Your task to perform on an android device: turn off improve location accuracy Image 0: 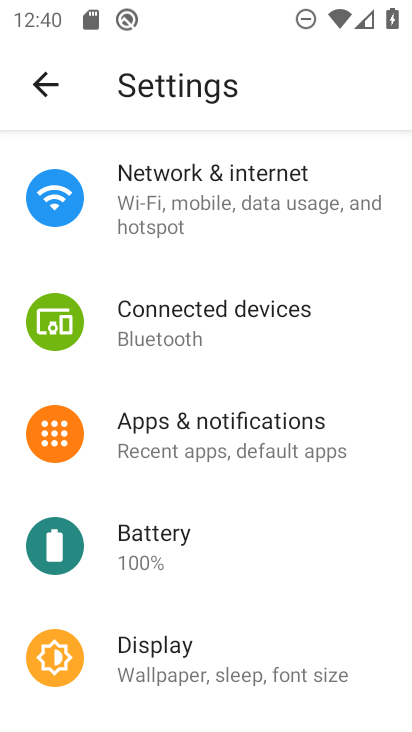
Step 0: drag from (196, 567) to (215, 239)
Your task to perform on an android device: turn off improve location accuracy Image 1: 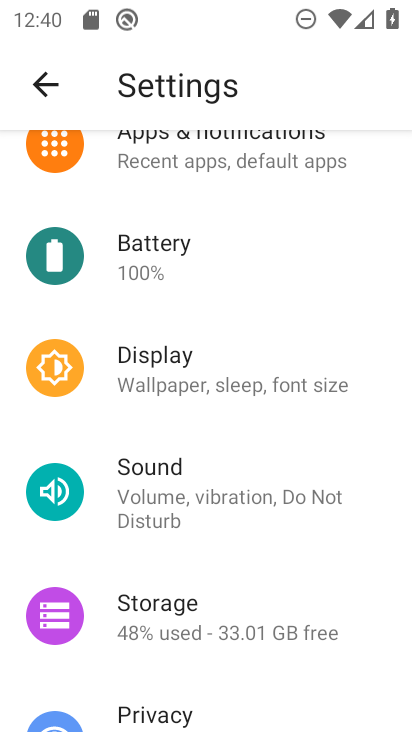
Step 1: drag from (195, 610) to (184, 274)
Your task to perform on an android device: turn off improve location accuracy Image 2: 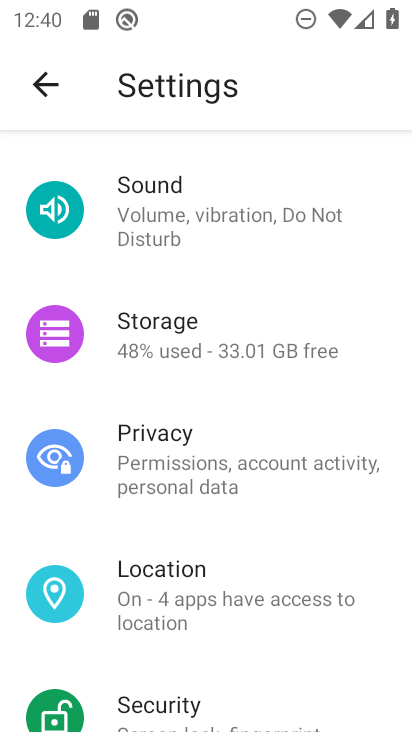
Step 2: drag from (271, 616) to (333, 253)
Your task to perform on an android device: turn off improve location accuracy Image 3: 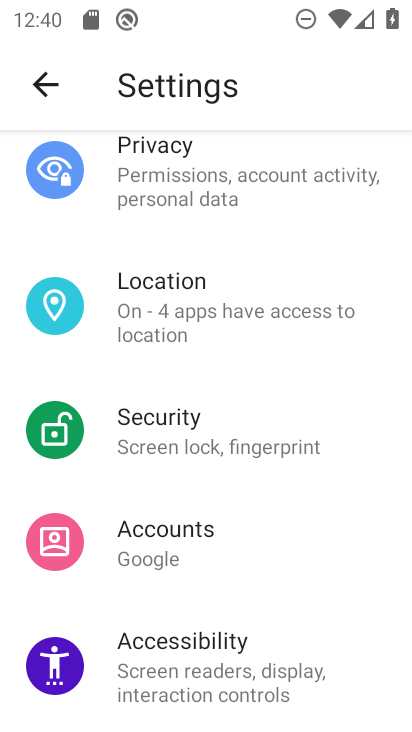
Step 3: click (281, 297)
Your task to perform on an android device: turn off improve location accuracy Image 4: 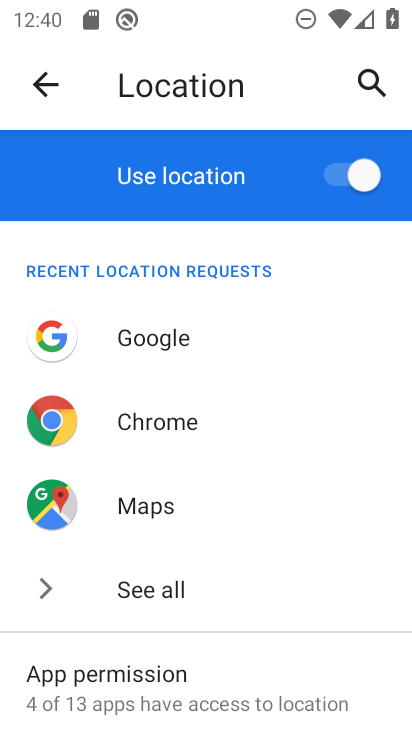
Step 4: drag from (192, 608) to (185, 327)
Your task to perform on an android device: turn off improve location accuracy Image 5: 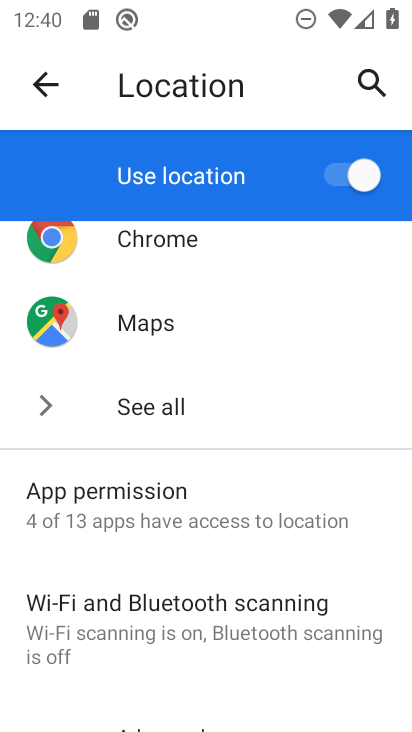
Step 5: drag from (186, 664) to (222, 361)
Your task to perform on an android device: turn off improve location accuracy Image 6: 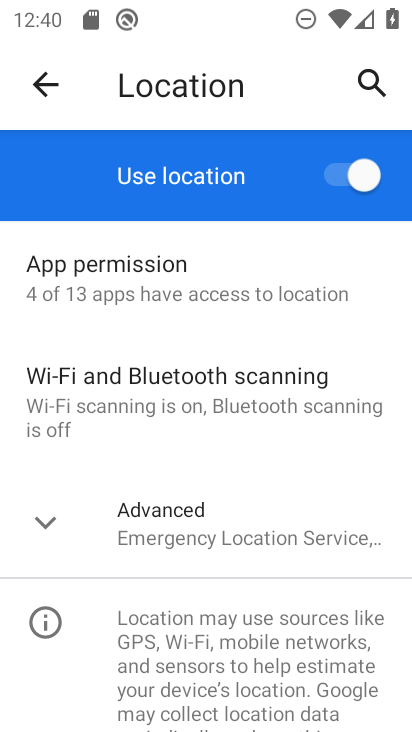
Step 6: click (178, 536)
Your task to perform on an android device: turn off improve location accuracy Image 7: 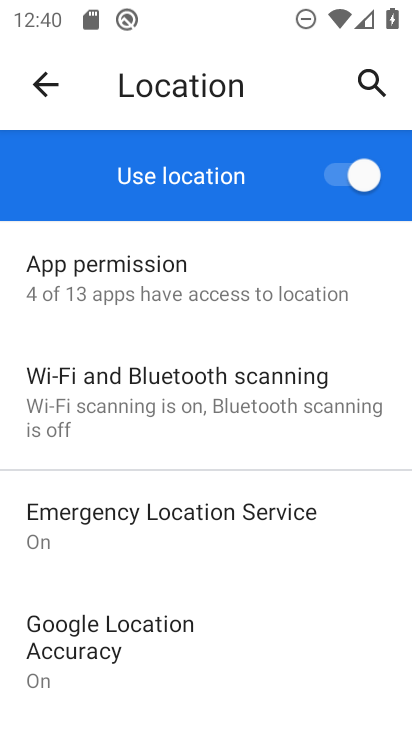
Step 7: click (125, 655)
Your task to perform on an android device: turn off improve location accuracy Image 8: 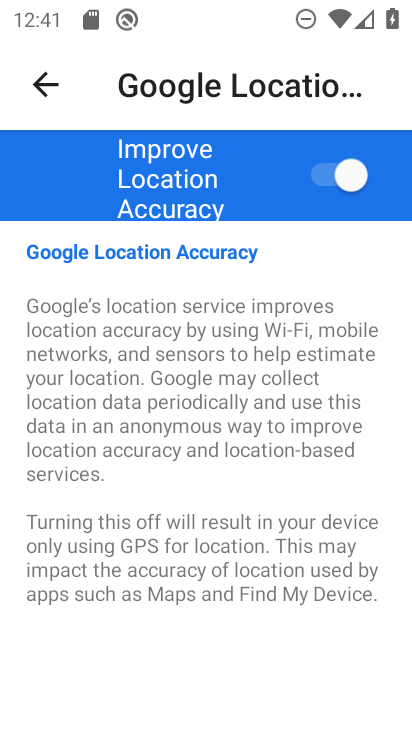
Step 8: click (331, 187)
Your task to perform on an android device: turn off improve location accuracy Image 9: 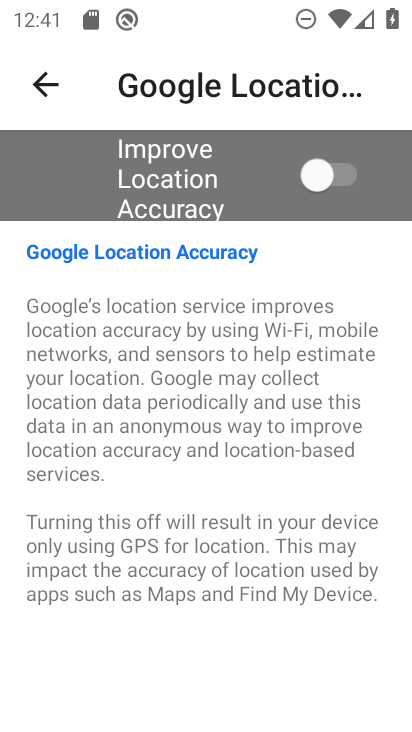
Step 9: task complete